Your task to perform on an android device: find photos in the google photos app Image 0: 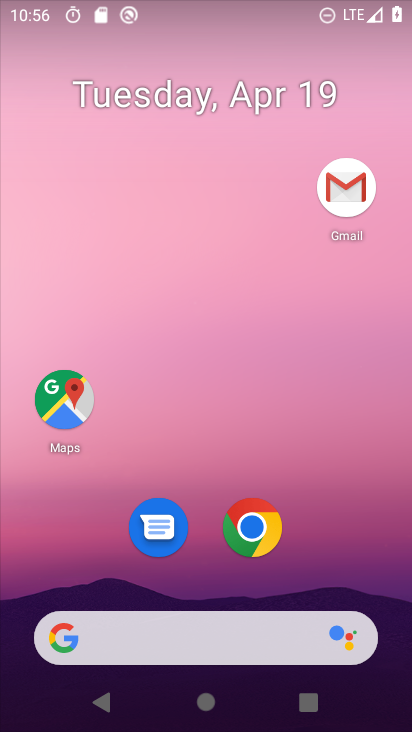
Step 0: drag from (358, 524) to (366, 31)
Your task to perform on an android device: find photos in the google photos app Image 1: 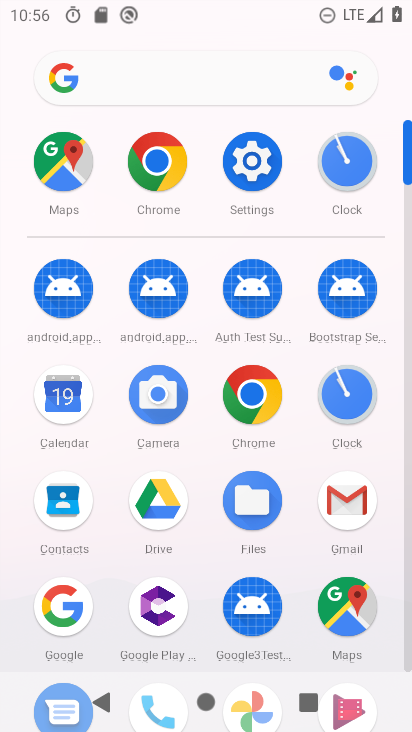
Step 1: drag from (301, 539) to (318, 217)
Your task to perform on an android device: find photos in the google photos app Image 2: 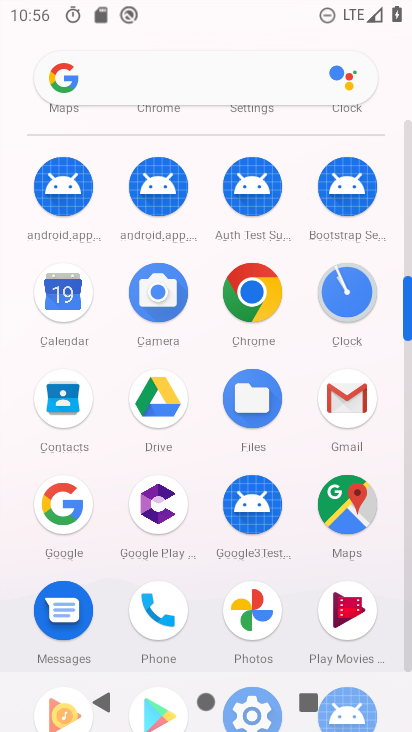
Step 2: click (255, 607)
Your task to perform on an android device: find photos in the google photos app Image 3: 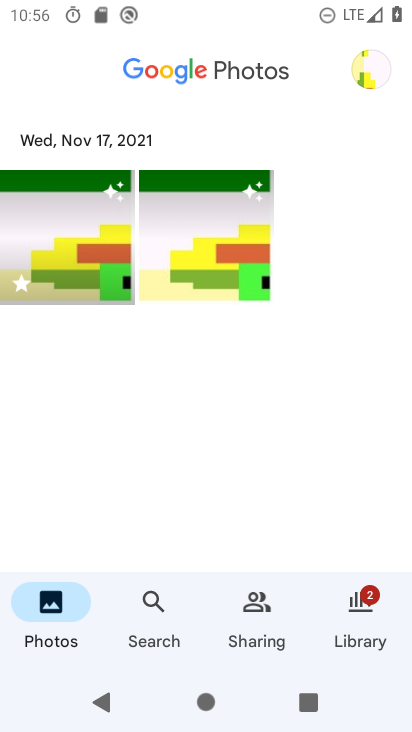
Step 3: task complete